Your task to perform on an android device: Go to CNN.com Image 0: 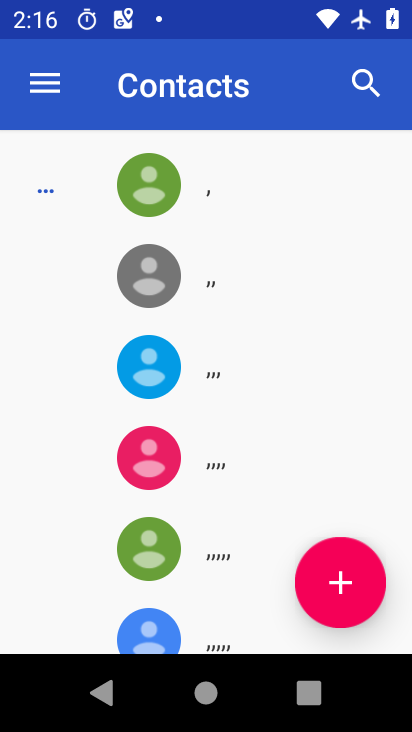
Step 0: press home button
Your task to perform on an android device: Go to CNN.com Image 1: 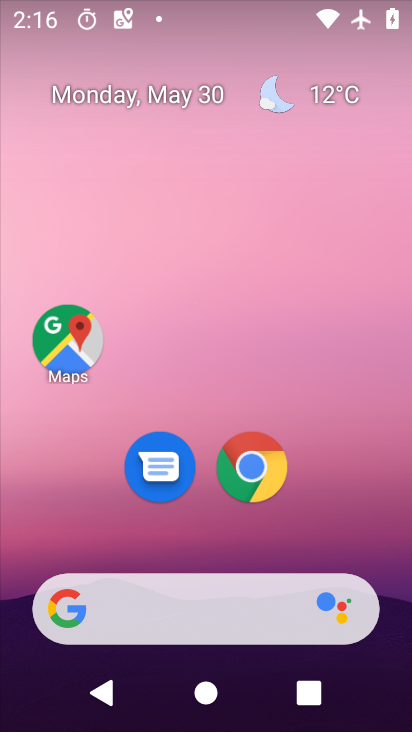
Step 1: click (262, 464)
Your task to perform on an android device: Go to CNN.com Image 2: 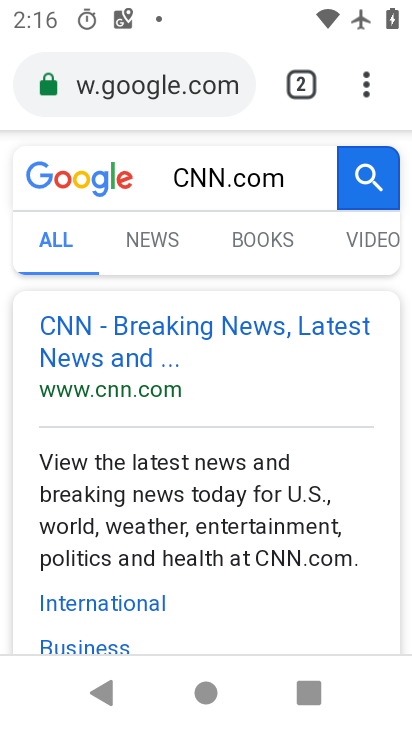
Step 2: task complete